Your task to perform on an android device: turn on airplane mode Image 0: 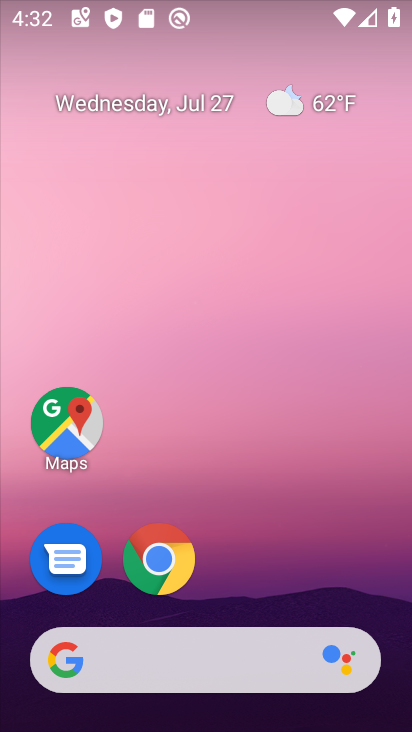
Step 0: drag from (332, 13) to (222, 625)
Your task to perform on an android device: turn on airplane mode Image 1: 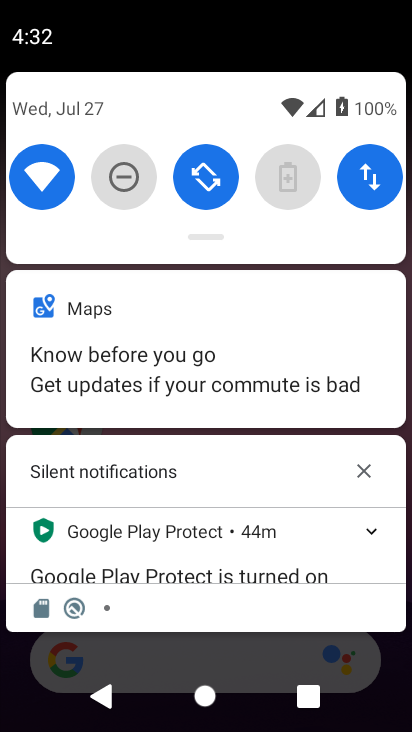
Step 1: drag from (195, 229) to (188, 650)
Your task to perform on an android device: turn on airplane mode Image 2: 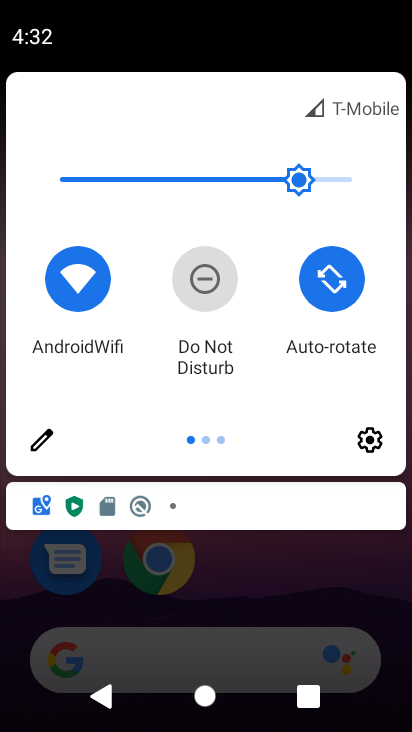
Step 2: drag from (377, 284) to (49, 297)
Your task to perform on an android device: turn on airplane mode Image 3: 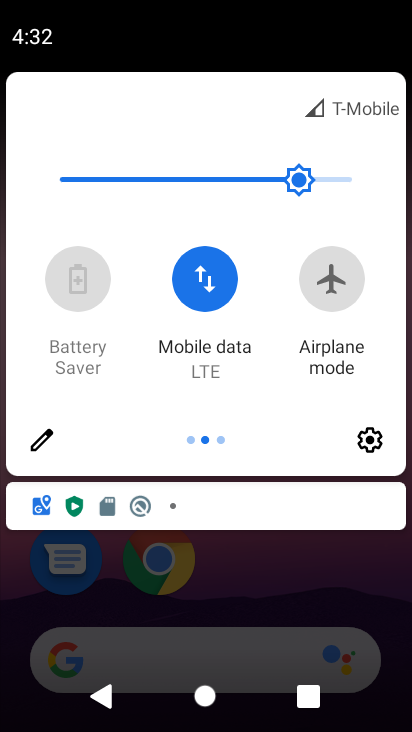
Step 3: click (339, 265)
Your task to perform on an android device: turn on airplane mode Image 4: 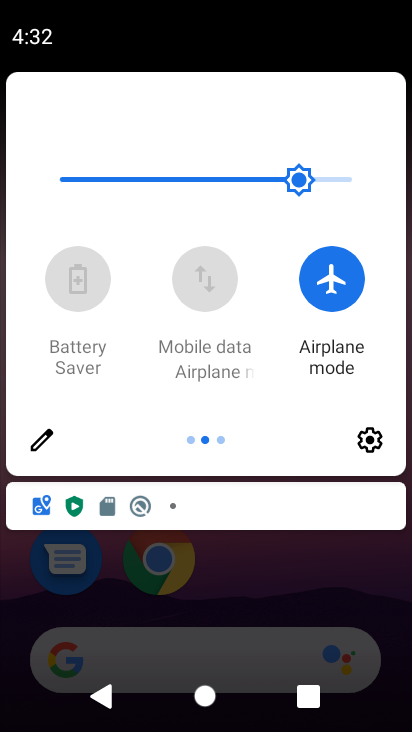
Step 4: task complete